Your task to perform on an android device: change timer sound Image 0: 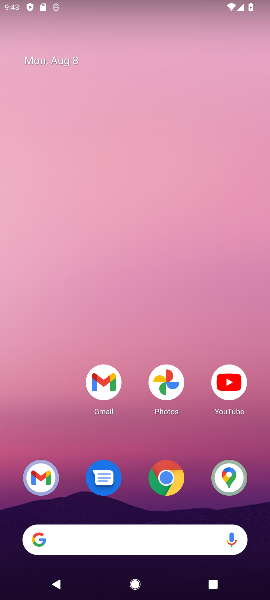
Step 0: drag from (200, 522) to (172, 0)
Your task to perform on an android device: change timer sound Image 1: 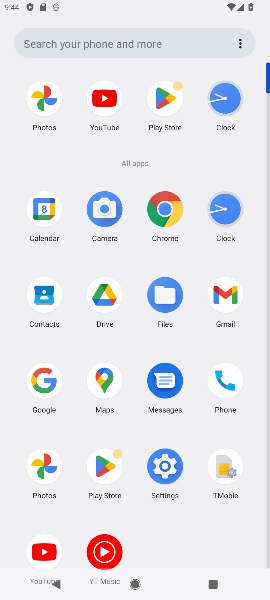
Step 1: click (212, 206)
Your task to perform on an android device: change timer sound Image 2: 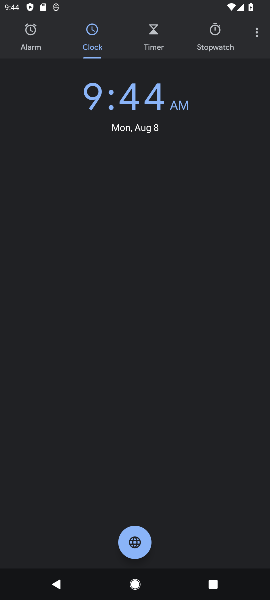
Step 2: click (258, 30)
Your task to perform on an android device: change timer sound Image 3: 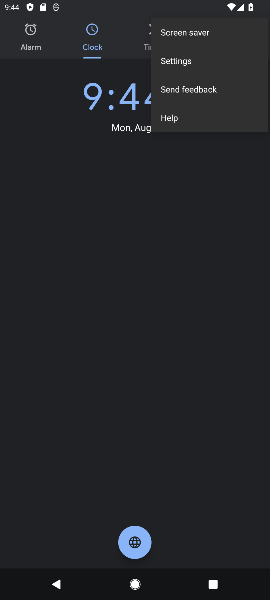
Step 3: click (183, 63)
Your task to perform on an android device: change timer sound Image 4: 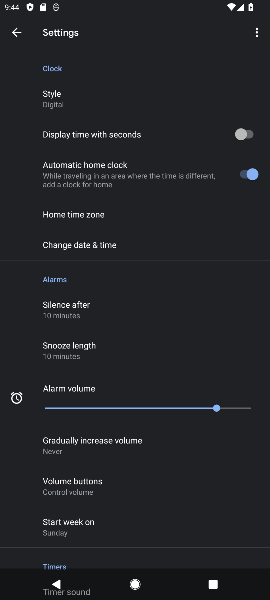
Step 4: drag from (100, 417) to (96, 170)
Your task to perform on an android device: change timer sound Image 5: 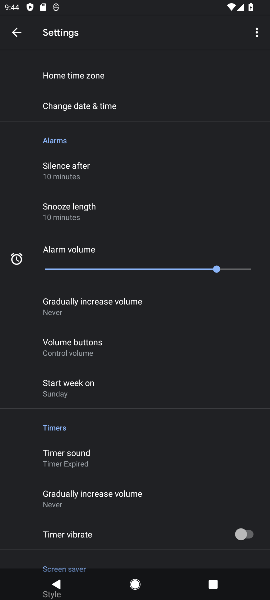
Step 5: click (64, 466)
Your task to perform on an android device: change timer sound Image 6: 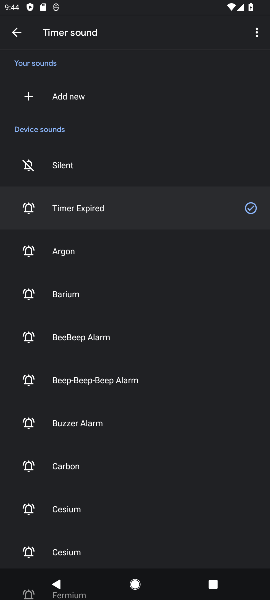
Step 6: click (89, 344)
Your task to perform on an android device: change timer sound Image 7: 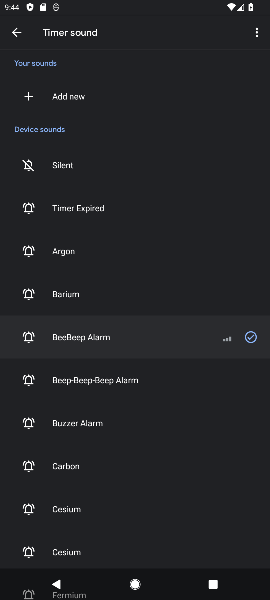
Step 7: task complete